Your task to perform on an android device: Open the settings Image 0: 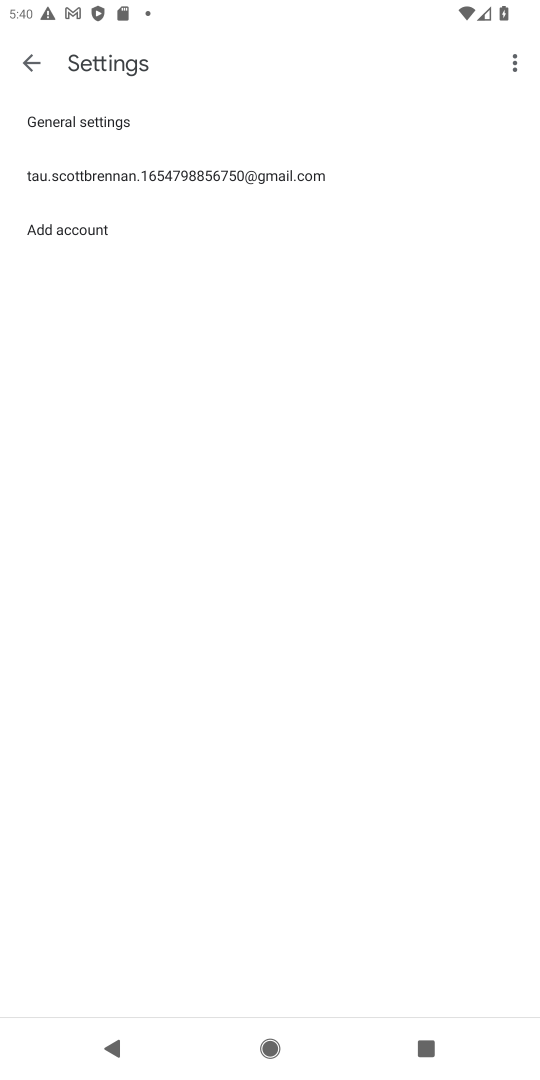
Step 0: press home button
Your task to perform on an android device: Open the settings Image 1: 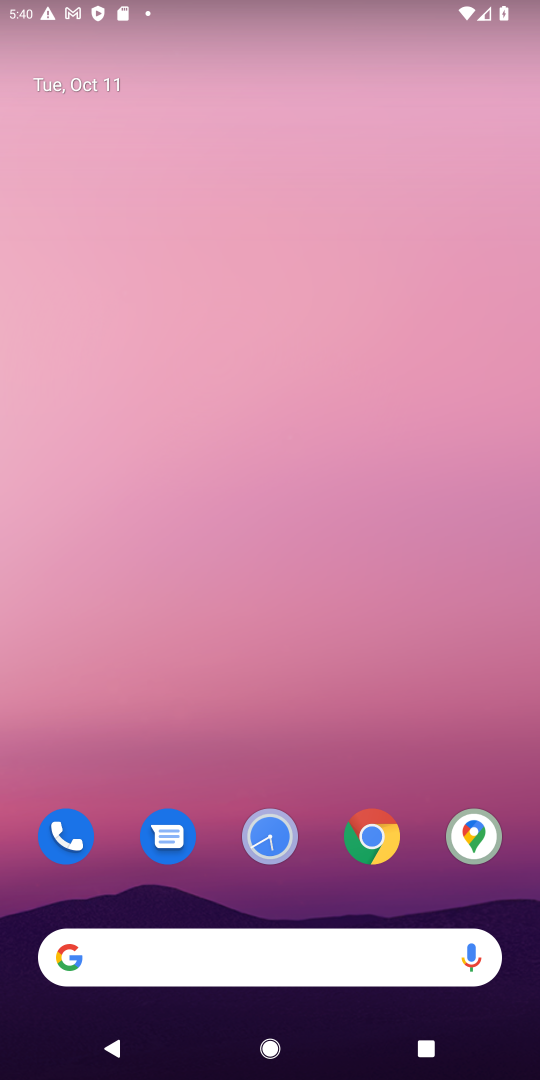
Step 1: drag from (321, 888) to (298, 89)
Your task to perform on an android device: Open the settings Image 2: 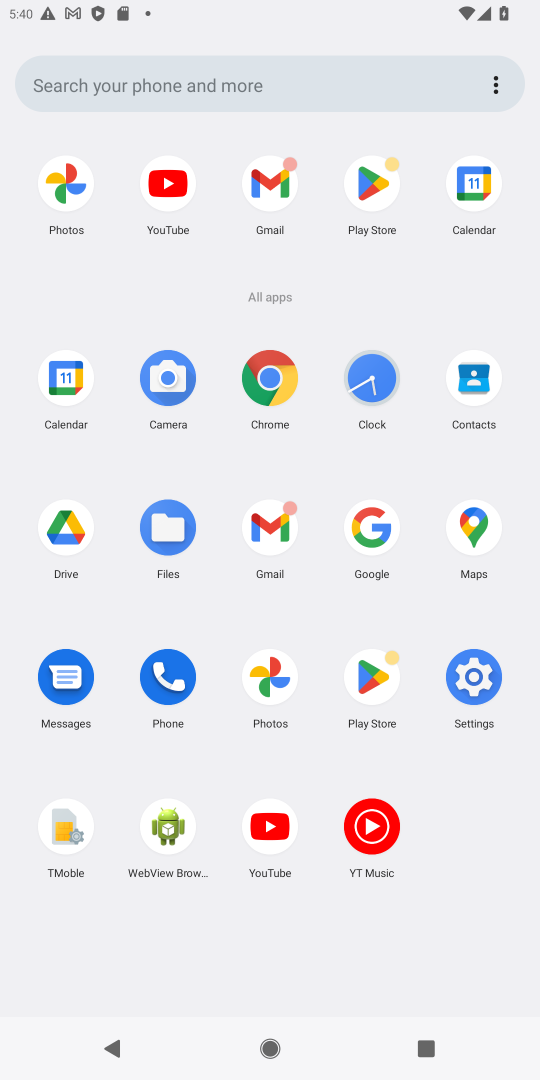
Step 2: click (471, 677)
Your task to perform on an android device: Open the settings Image 3: 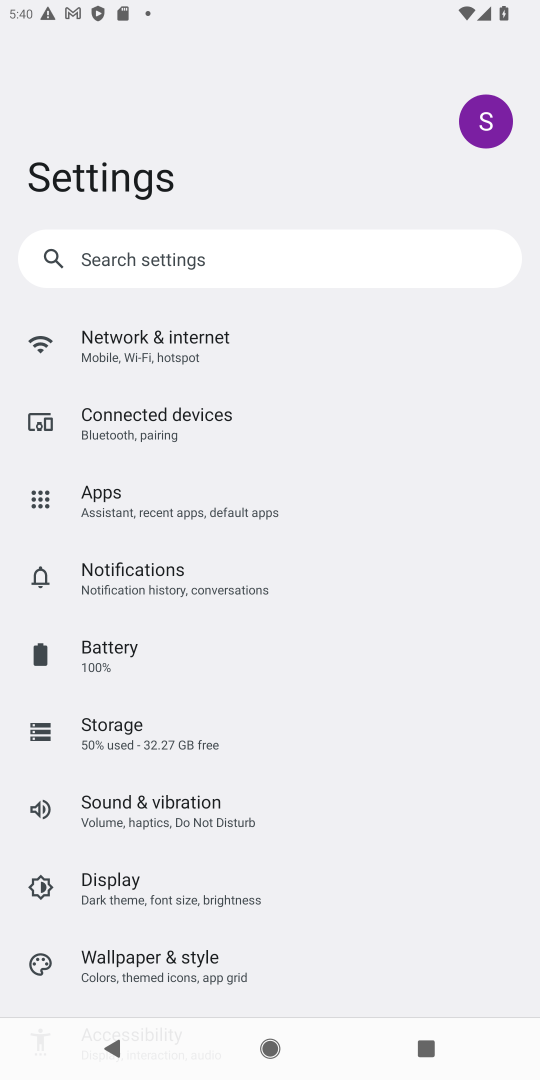
Step 3: task complete